Your task to perform on an android device: Show the shopping cart on amazon.com. Search for "usb-b" on amazon.com, select the first entry, and add it to the cart. Image 0: 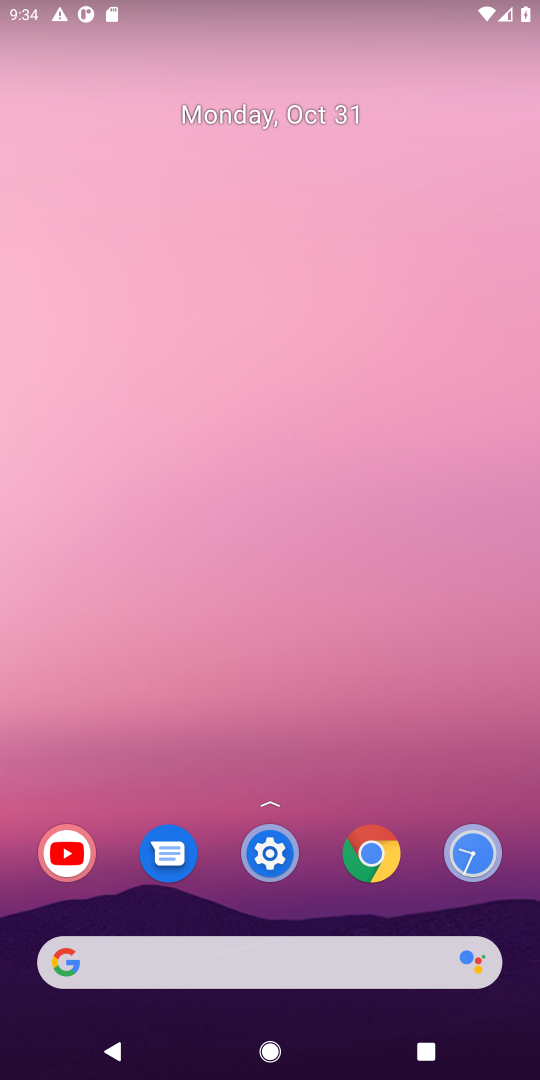
Step 0: click (228, 955)
Your task to perform on an android device: Show the shopping cart on amazon.com. Search for "usb-b" on amazon.com, select the first entry, and add it to the cart. Image 1: 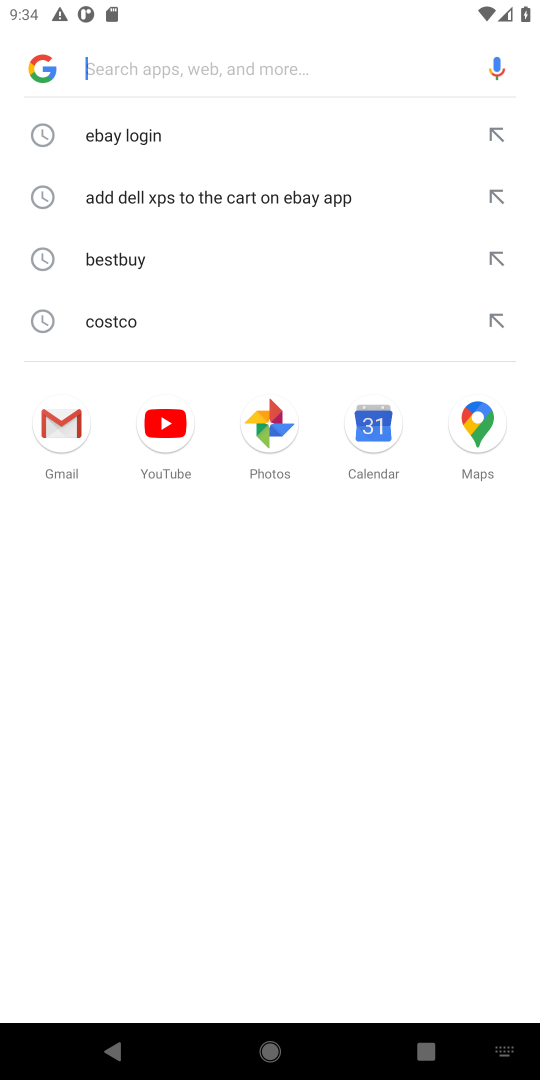
Step 1: type "amazon.com"
Your task to perform on an android device: Show the shopping cart on amazon.com. Search for "usb-b" on amazon.com, select the first entry, and add it to the cart. Image 2: 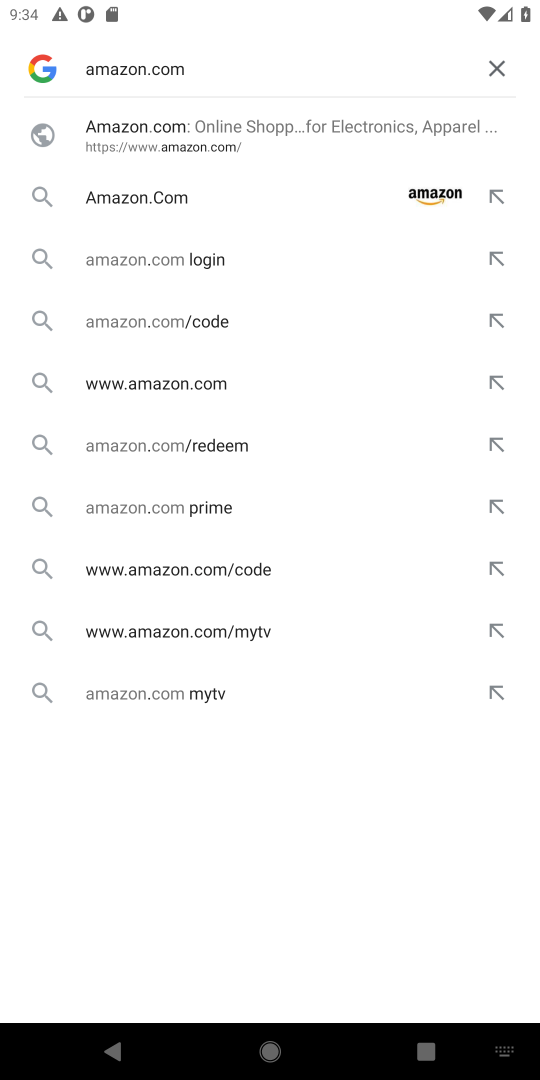
Step 2: click (160, 193)
Your task to perform on an android device: Show the shopping cart on amazon.com. Search for "usb-b" on amazon.com, select the first entry, and add it to the cart. Image 3: 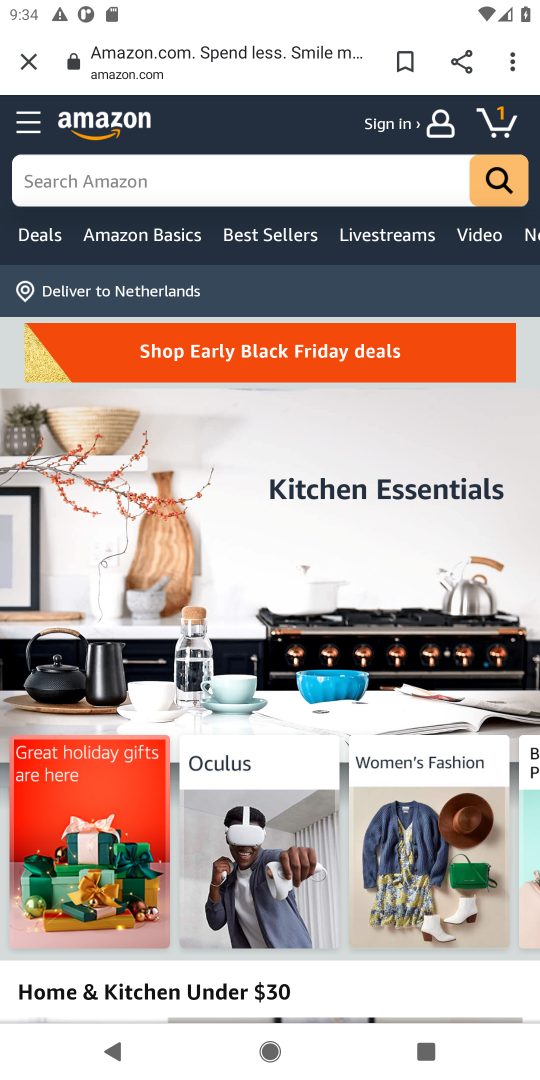
Step 3: click (157, 180)
Your task to perform on an android device: Show the shopping cart on amazon.com. Search for "usb-b" on amazon.com, select the first entry, and add it to the cart. Image 4: 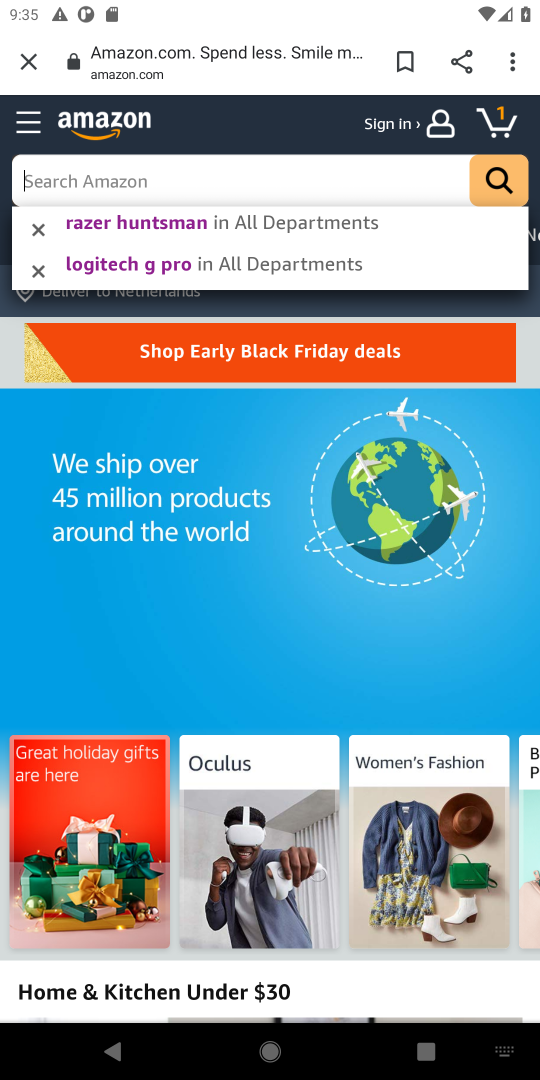
Step 4: type "usb-b"
Your task to perform on an android device: Show the shopping cart on amazon.com. Search for "usb-b" on amazon.com, select the first entry, and add it to the cart. Image 5: 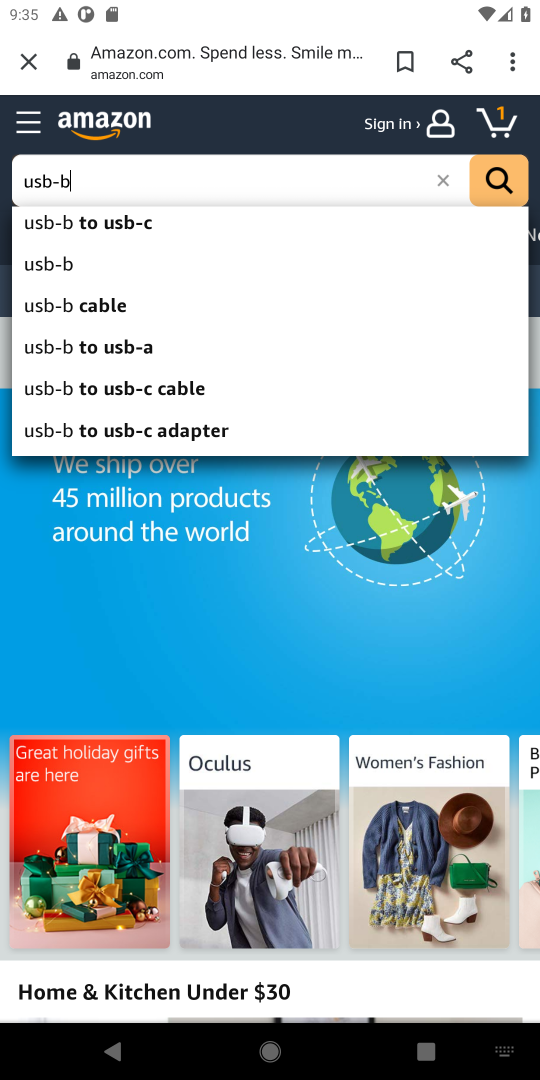
Step 5: click (62, 257)
Your task to perform on an android device: Show the shopping cart on amazon.com. Search for "usb-b" on amazon.com, select the first entry, and add it to the cart. Image 6: 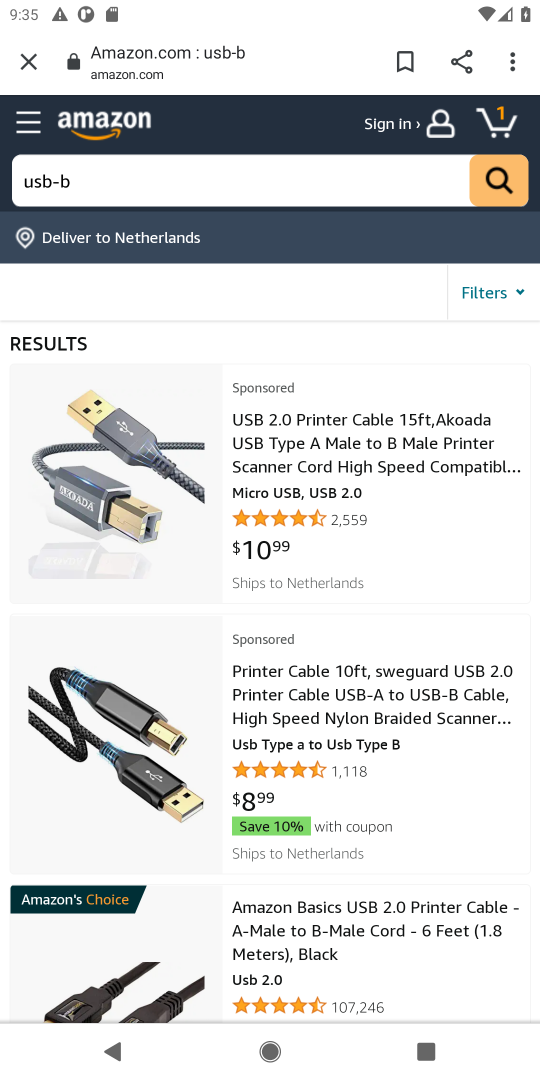
Step 6: click (353, 443)
Your task to perform on an android device: Show the shopping cart on amazon.com. Search for "usb-b" on amazon.com, select the first entry, and add it to the cart. Image 7: 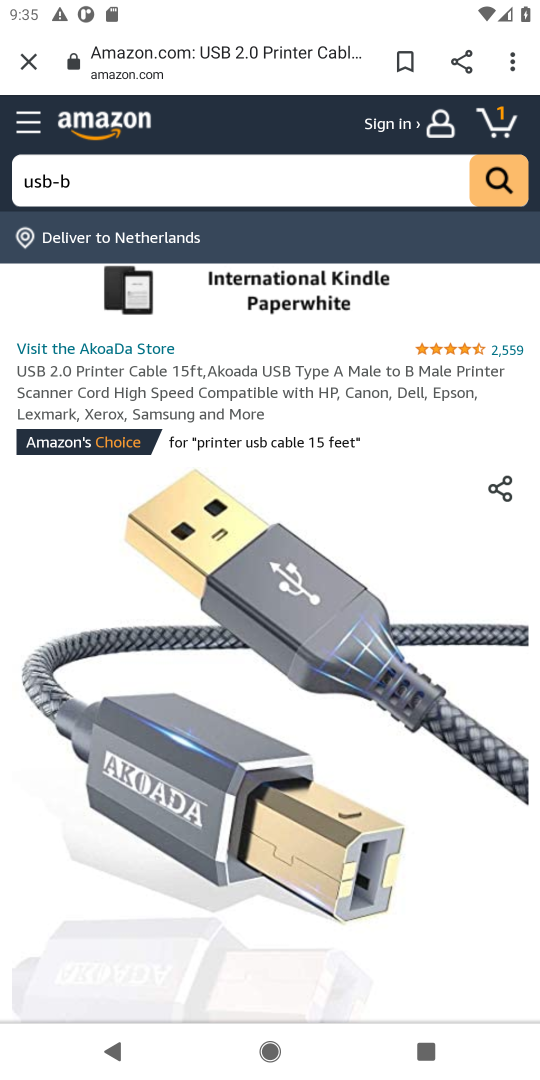
Step 7: drag from (433, 817) to (406, 497)
Your task to perform on an android device: Show the shopping cart on amazon.com. Search for "usb-b" on amazon.com, select the first entry, and add it to the cart. Image 8: 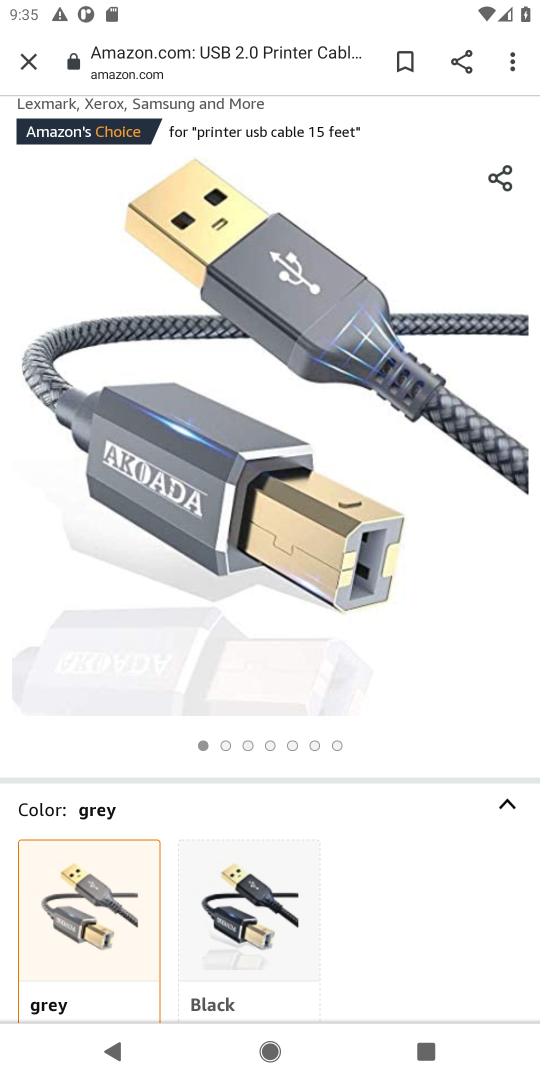
Step 8: drag from (413, 655) to (377, 377)
Your task to perform on an android device: Show the shopping cart on amazon.com. Search for "usb-b" on amazon.com, select the first entry, and add it to the cart. Image 9: 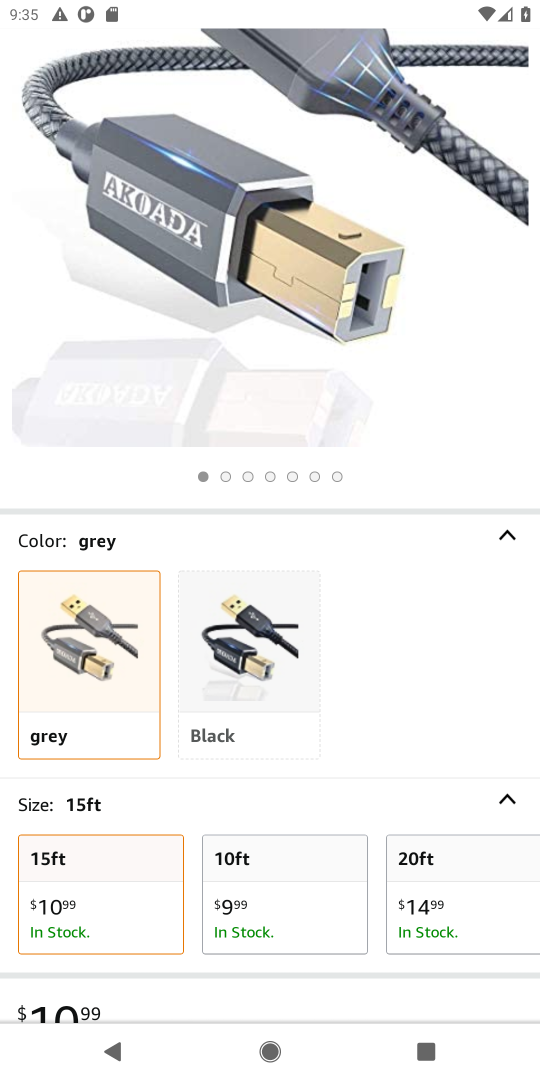
Step 9: drag from (413, 614) to (365, 259)
Your task to perform on an android device: Show the shopping cart on amazon.com. Search for "usb-b" on amazon.com, select the first entry, and add it to the cart. Image 10: 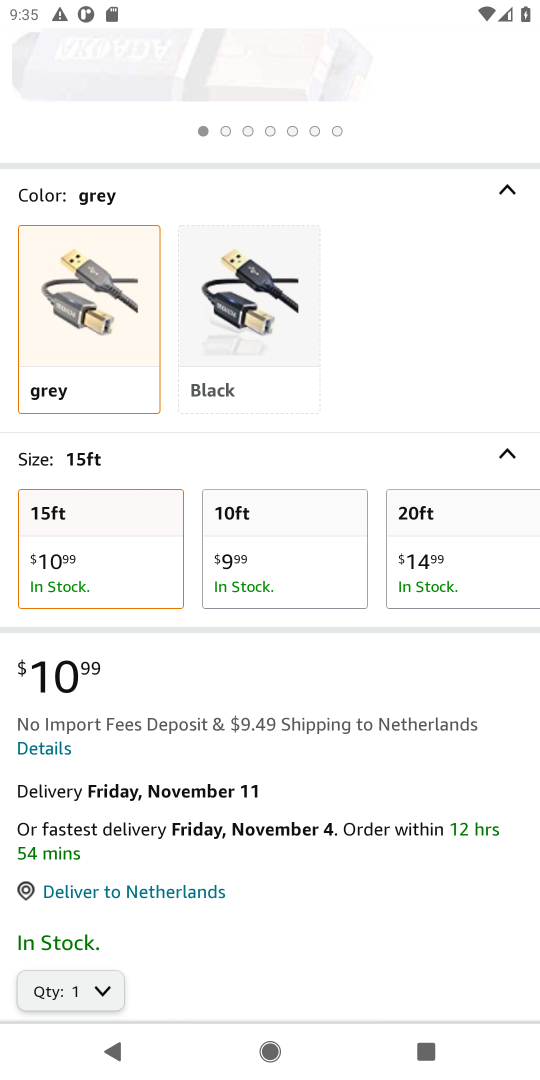
Step 10: drag from (325, 855) to (278, 392)
Your task to perform on an android device: Show the shopping cart on amazon.com. Search for "usb-b" on amazon.com, select the first entry, and add it to the cart. Image 11: 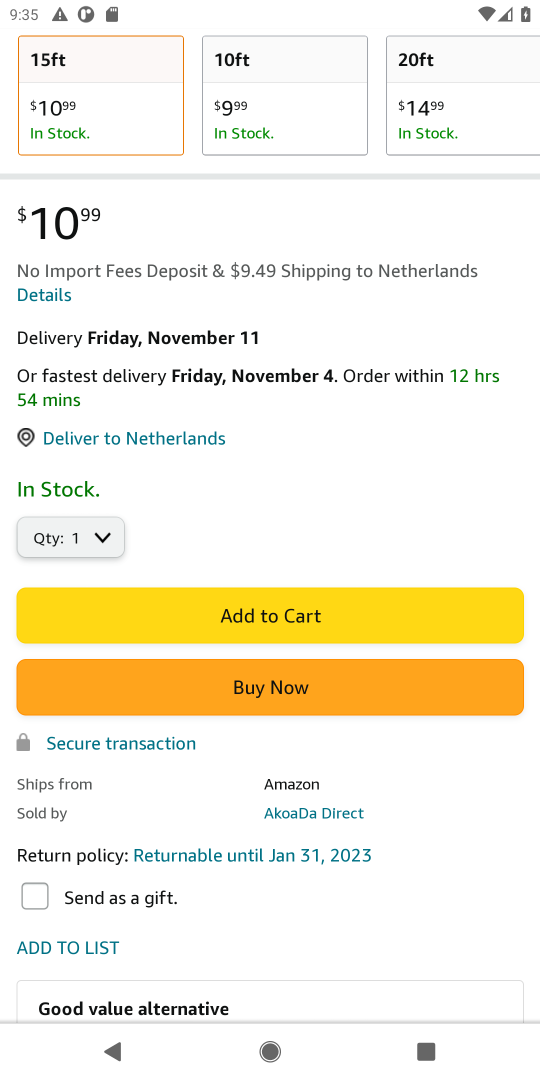
Step 11: click (288, 615)
Your task to perform on an android device: Show the shopping cart on amazon.com. Search for "usb-b" on amazon.com, select the first entry, and add it to the cart. Image 12: 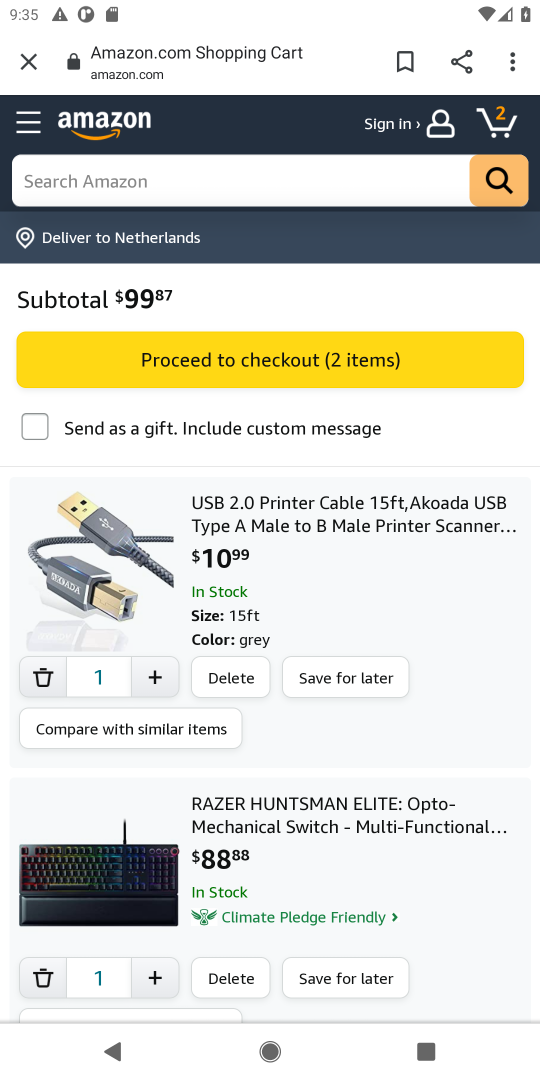
Step 12: task complete